Your task to perform on an android device: toggle improve location accuracy Image 0: 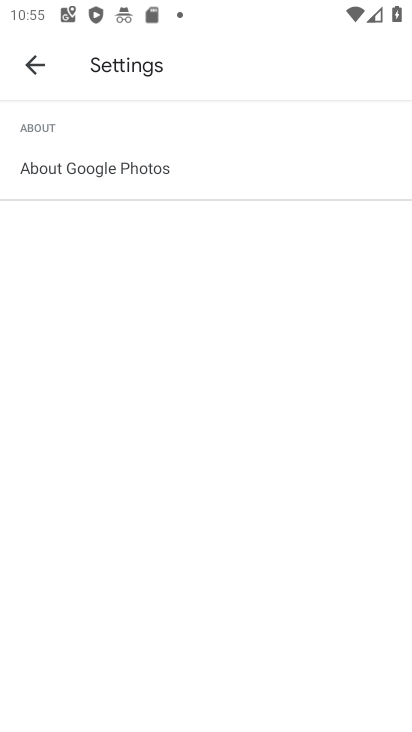
Step 0: press home button
Your task to perform on an android device: toggle improve location accuracy Image 1: 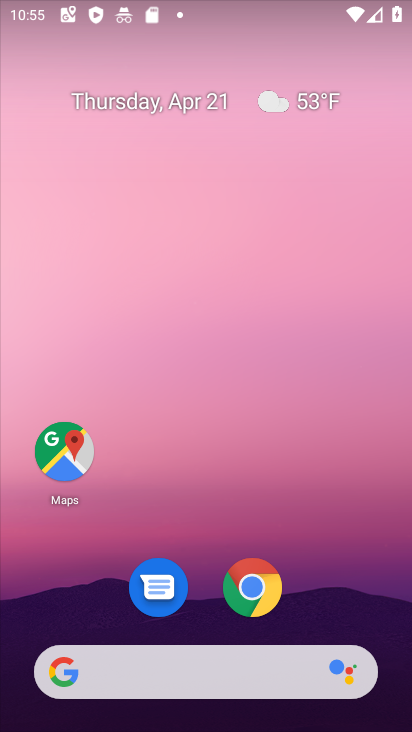
Step 1: drag from (147, 663) to (177, 141)
Your task to perform on an android device: toggle improve location accuracy Image 2: 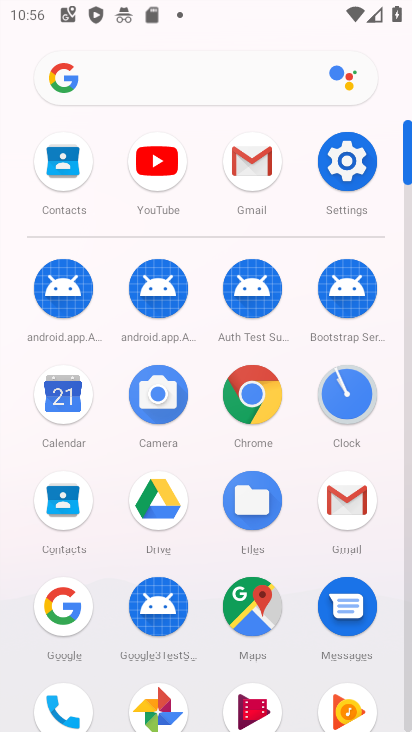
Step 2: click (349, 160)
Your task to perform on an android device: toggle improve location accuracy Image 3: 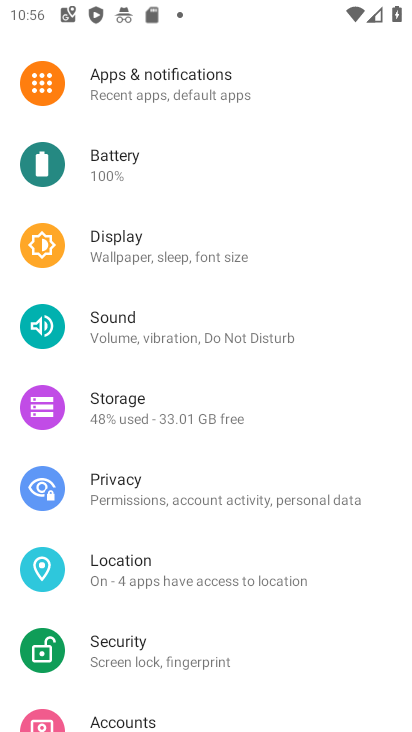
Step 3: click (113, 569)
Your task to perform on an android device: toggle improve location accuracy Image 4: 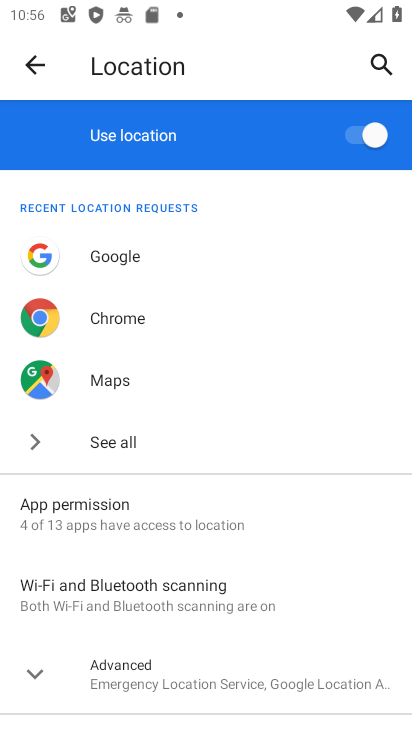
Step 4: drag from (180, 601) to (167, 167)
Your task to perform on an android device: toggle improve location accuracy Image 5: 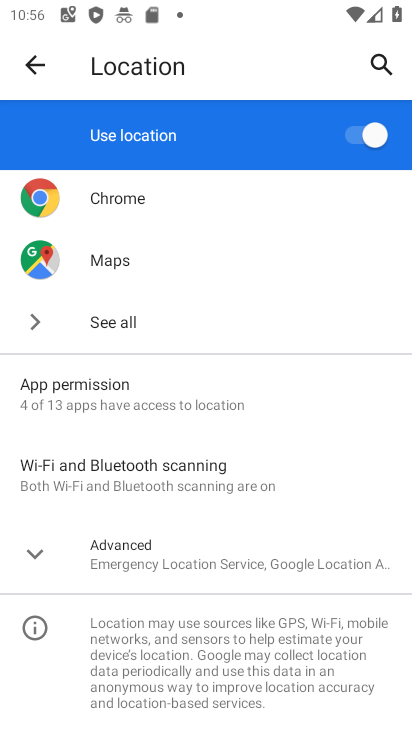
Step 5: click (152, 541)
Your task to perform on an android device: toggle improve location accuracy Image 6: 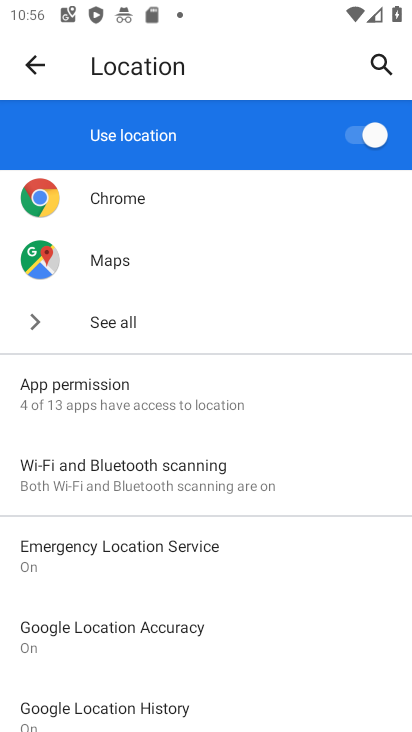
Step 6: click (106, 629)
Your task to perform on an android device: toggle improve location accuracy Image 7: 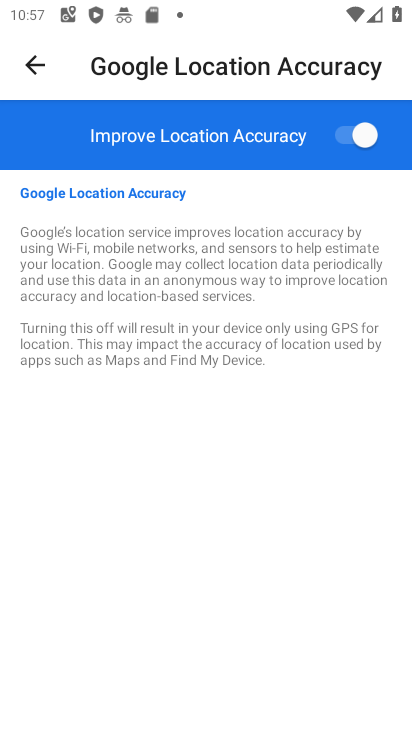
Step 7: click (345, 134)
Your task to perform on an android device: toggle improve location accuracy Image 8: 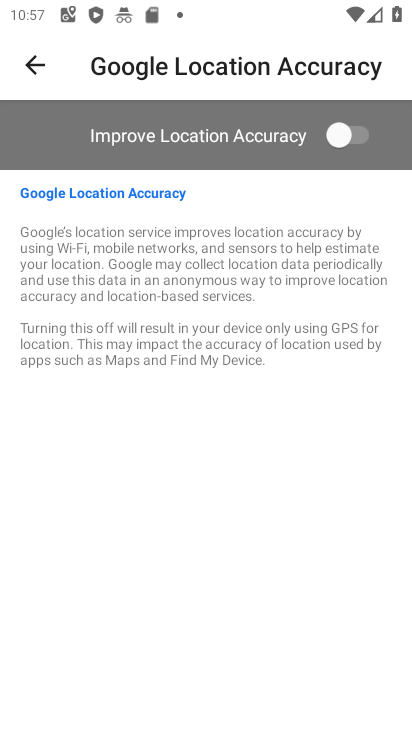
Step 8: task complete